Your task to perform on an android device: snooze an email in the gmail app Image 0: 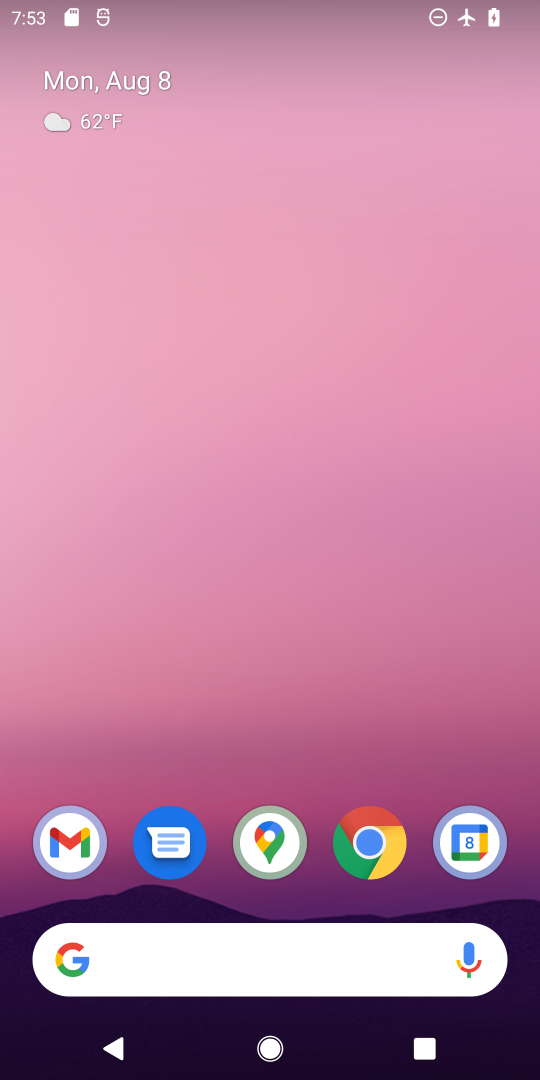
Step 0: drag from (269, 790) to (218, 154)
Your task to perform on an android device: snooze an email in the gmail app Image 1: 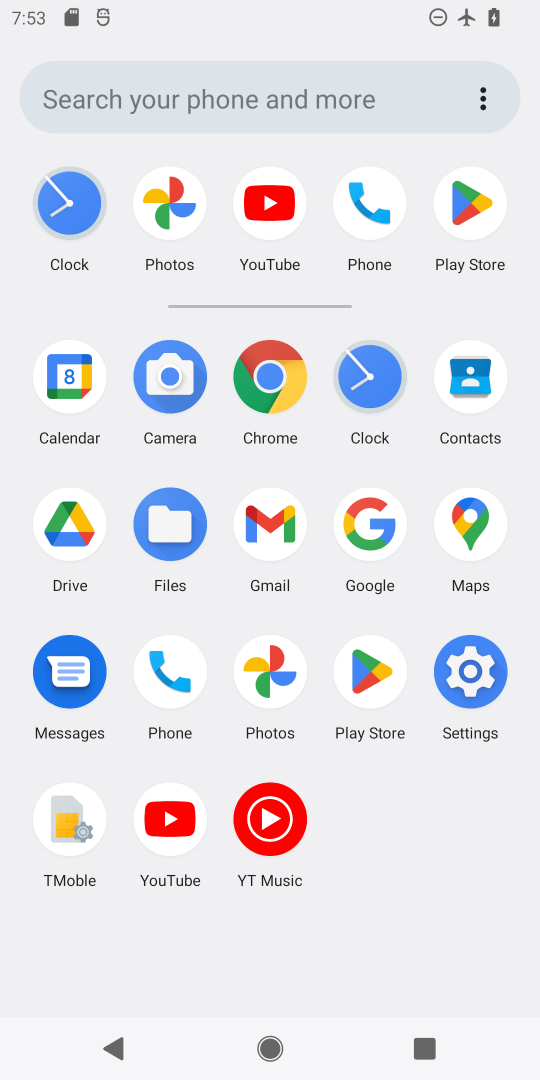
Step 1: click (272, 523)
Your task to perform on an android device: snooze an email in the gmail app Image 2: 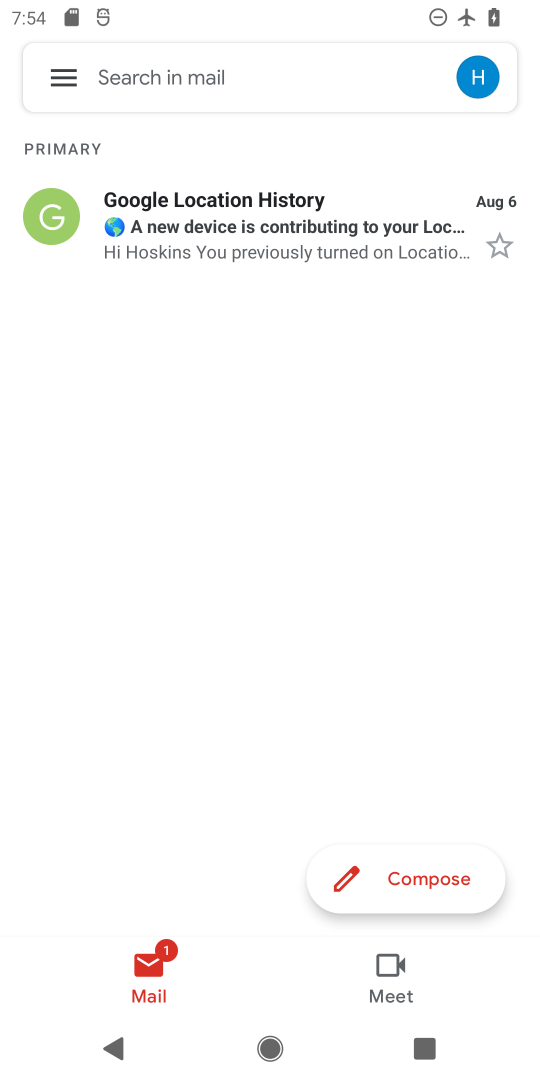
Step 2: click (154, 247)
Your task to perform on an android device: snooze an email in the gmail app Image 3: 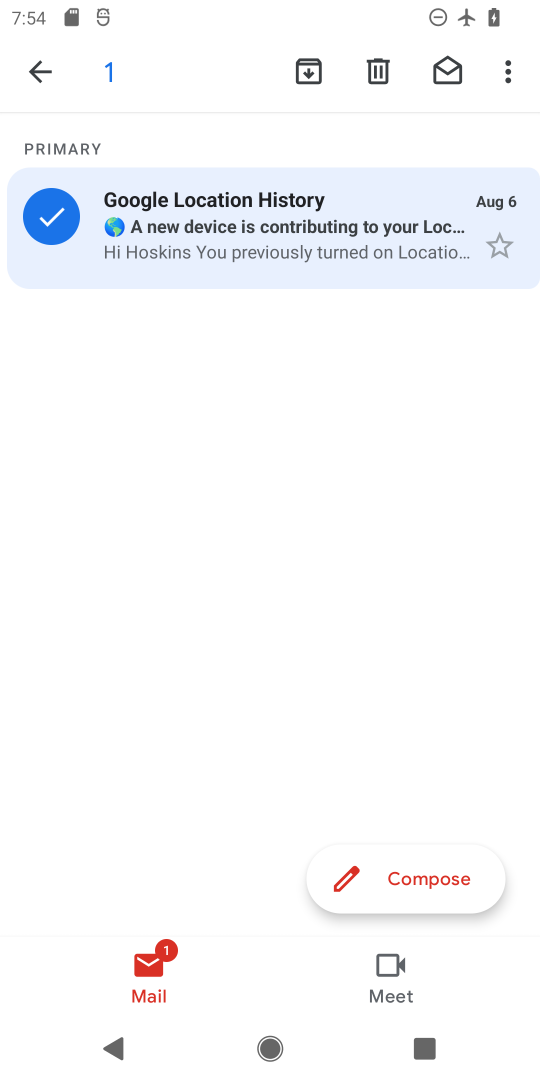
Step 3: click (494, 75)
Your task to perform on an android device: snooze an email in the gmail app Image 4: 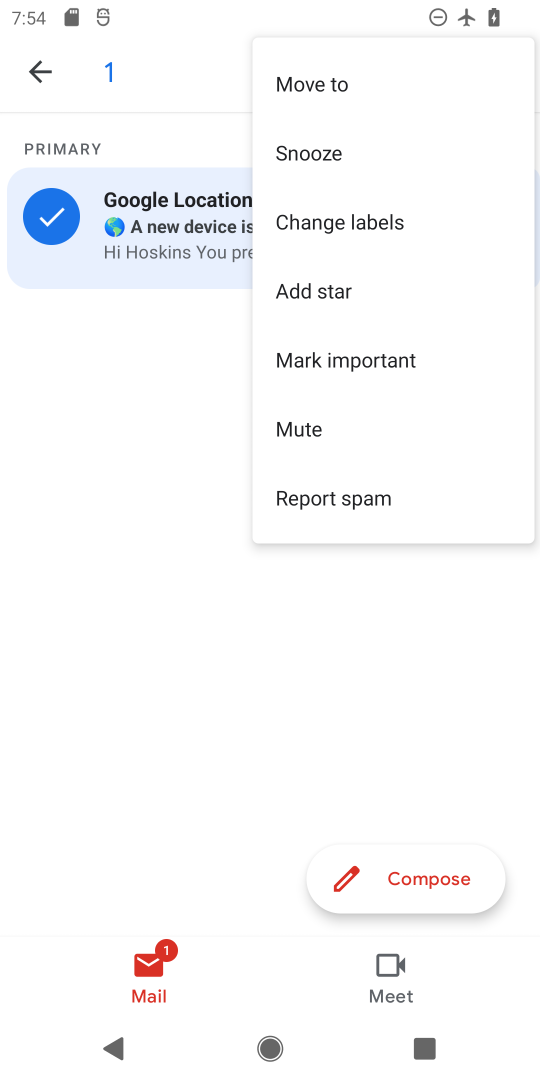
Step 4: click (334, 162)
Your task to perform on an android device: snooze an email in the gmail app Image 5: 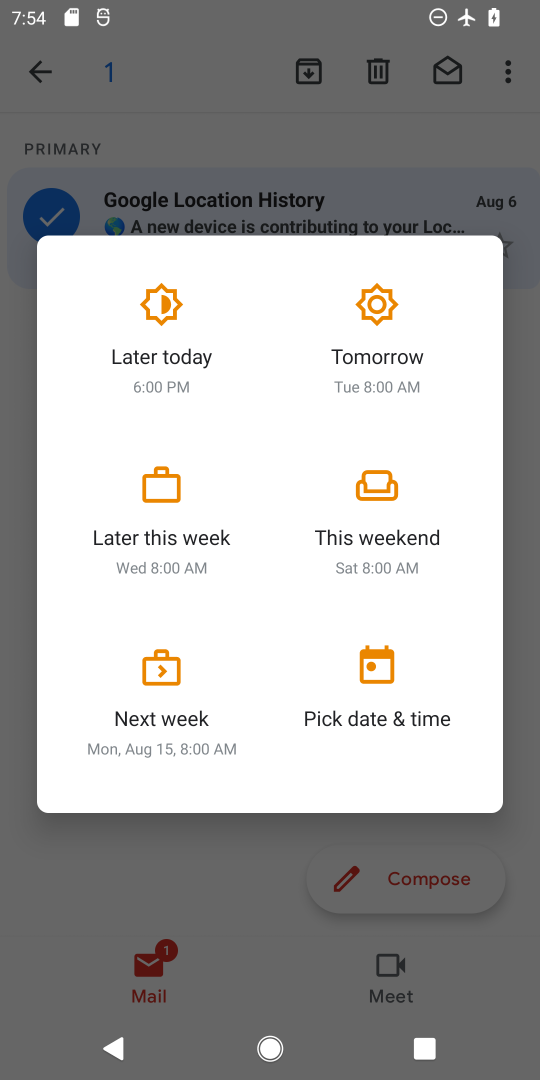
Step 5: click (167, 328)
Your task to perform on an android device: snooze an email in the gmail app Image 6: 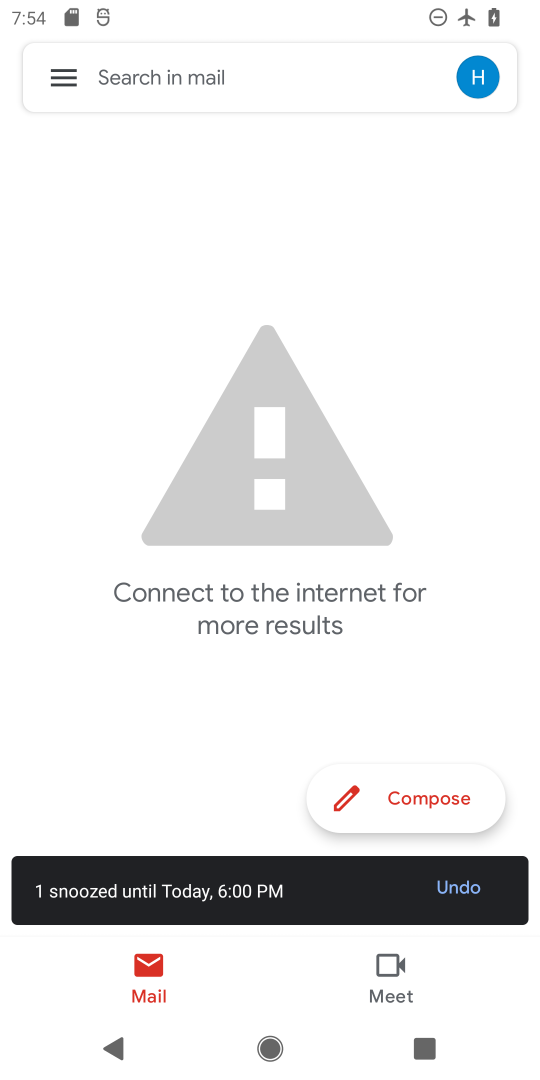
Step 6: task complete